Your task to perform on an android device: Show me recent news Image 0: 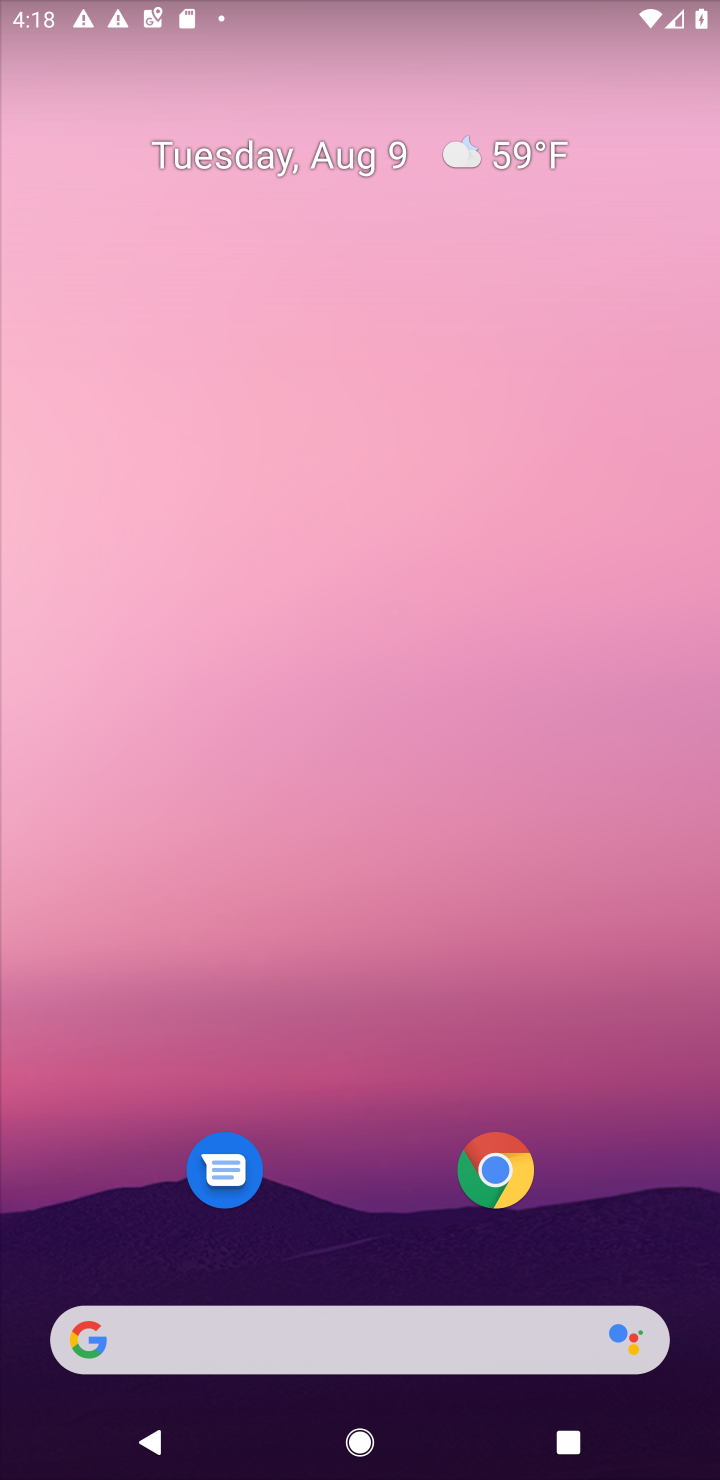
Step 0: press home button
Your task to perform on an android device: Show me recent news Image 1: 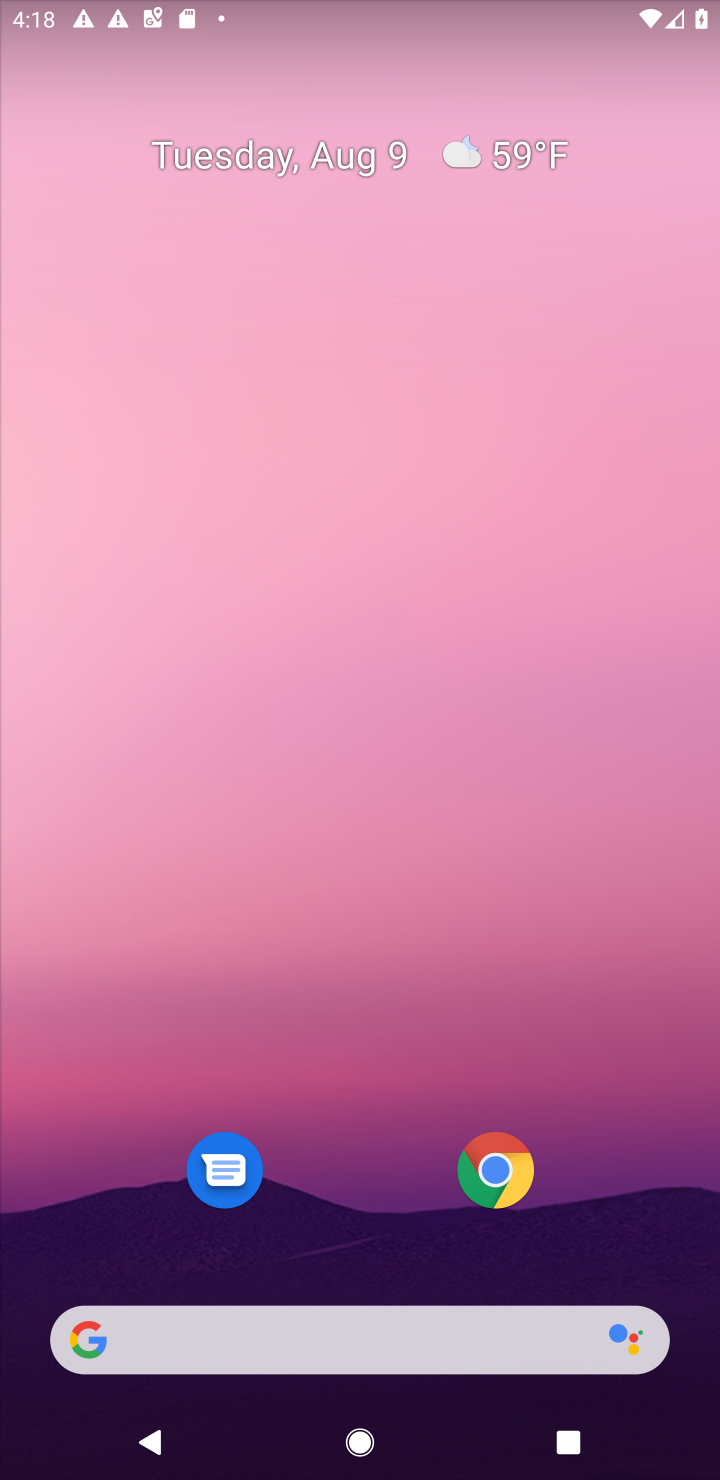
Step 1: click (86, 1349)
Your task to perform on an android device: Show me recent news Image 2: 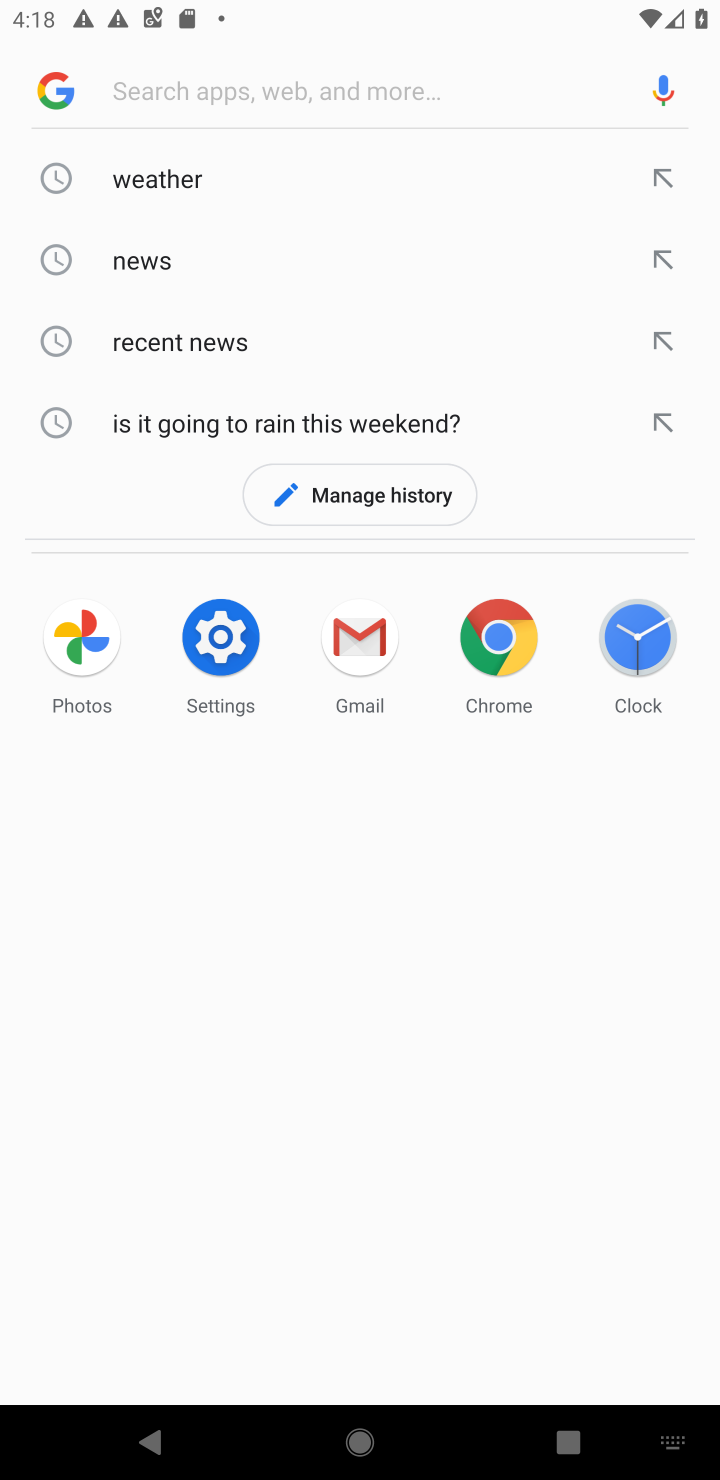
Step 2: type "recent news"
Your task to perform on an android device: Show me recent news Image 3: 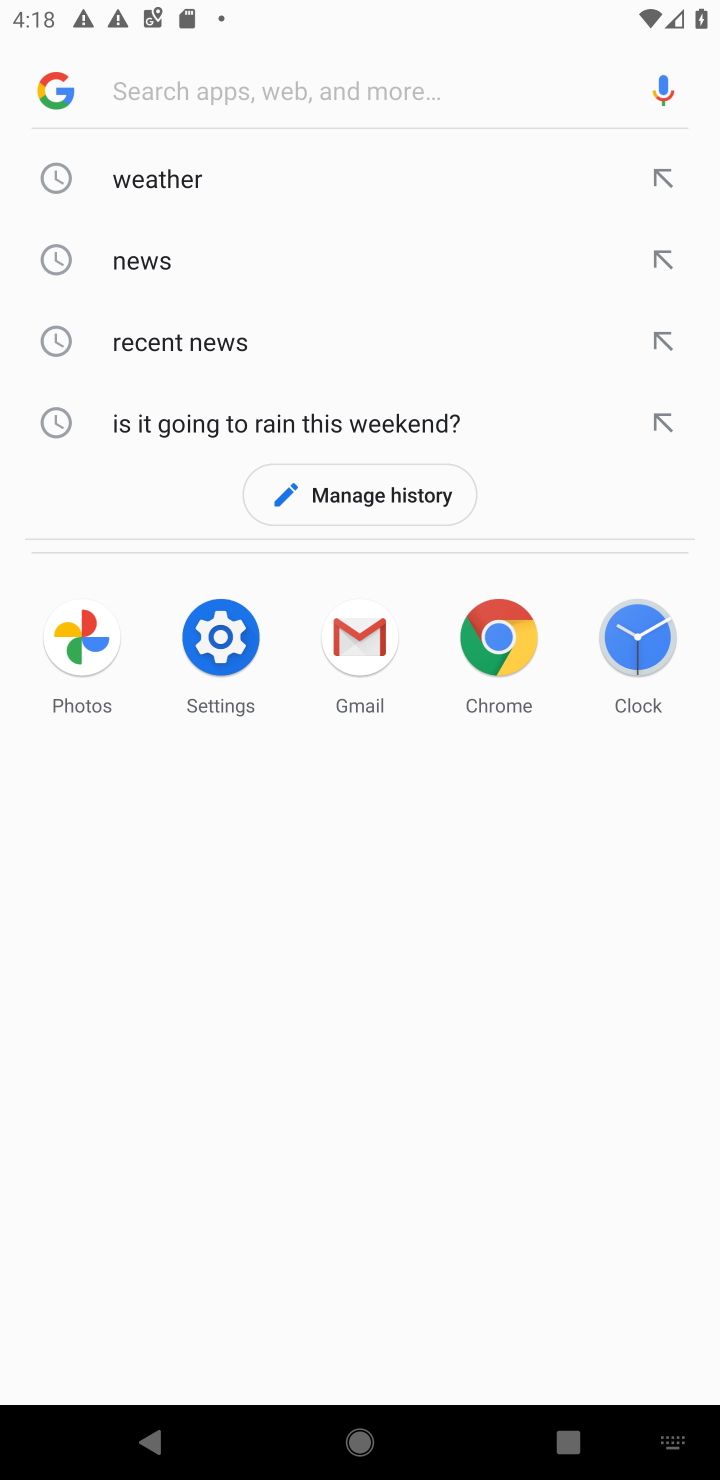
Step 3: click (163, 83)
Your task to perform on an android device: Show me recent news Image 4: 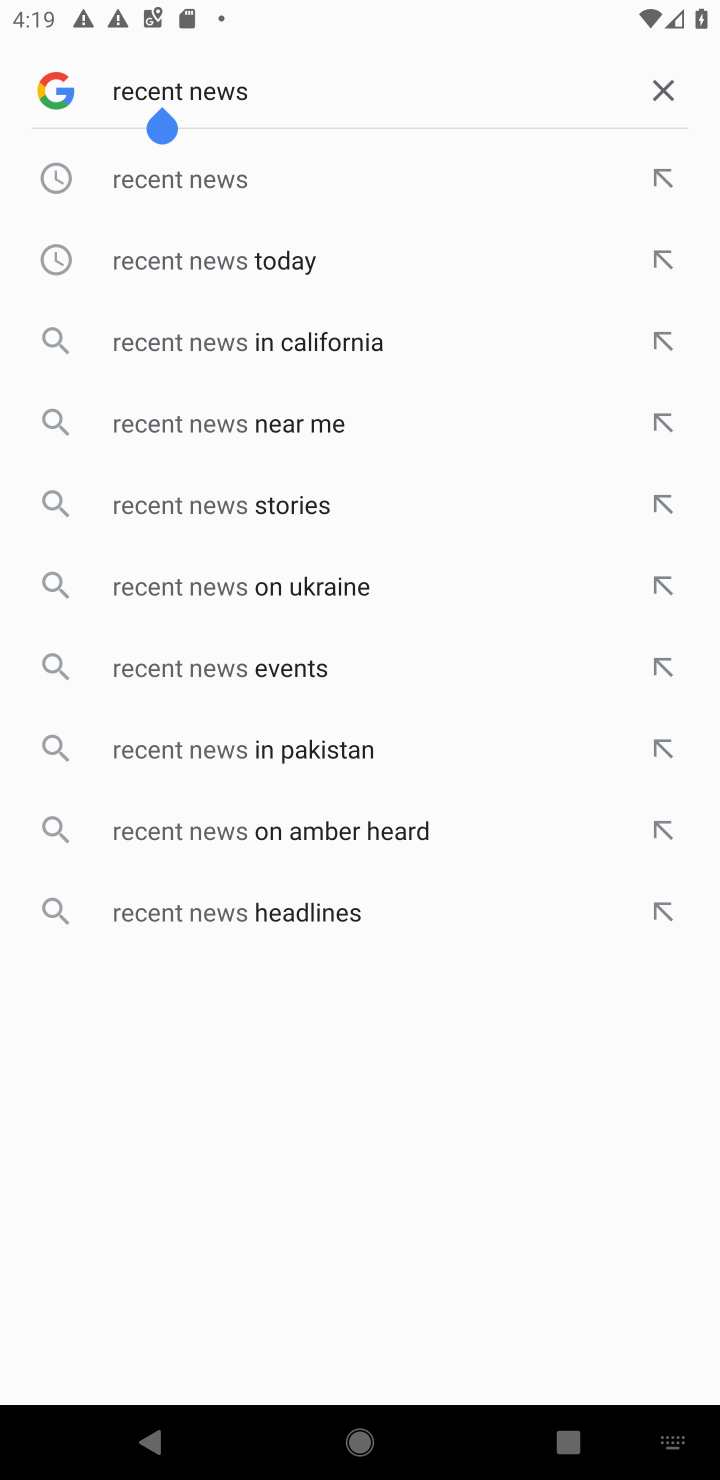
Step 4: click (206, 184)
Your task to perform on an android device: Show me recent news Image 5: 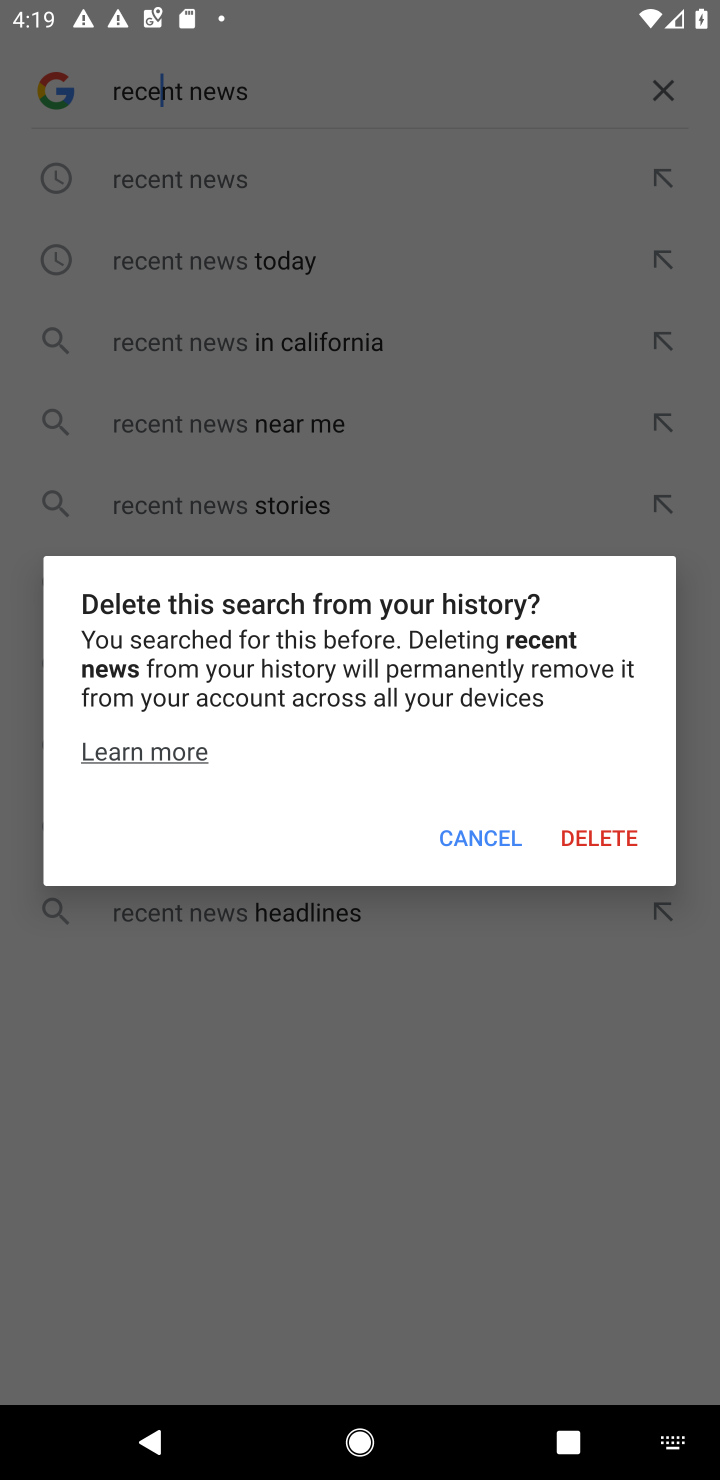
Step 5: click (444, 842)
Your task to perform on an android device: Show me recent news Image 6: 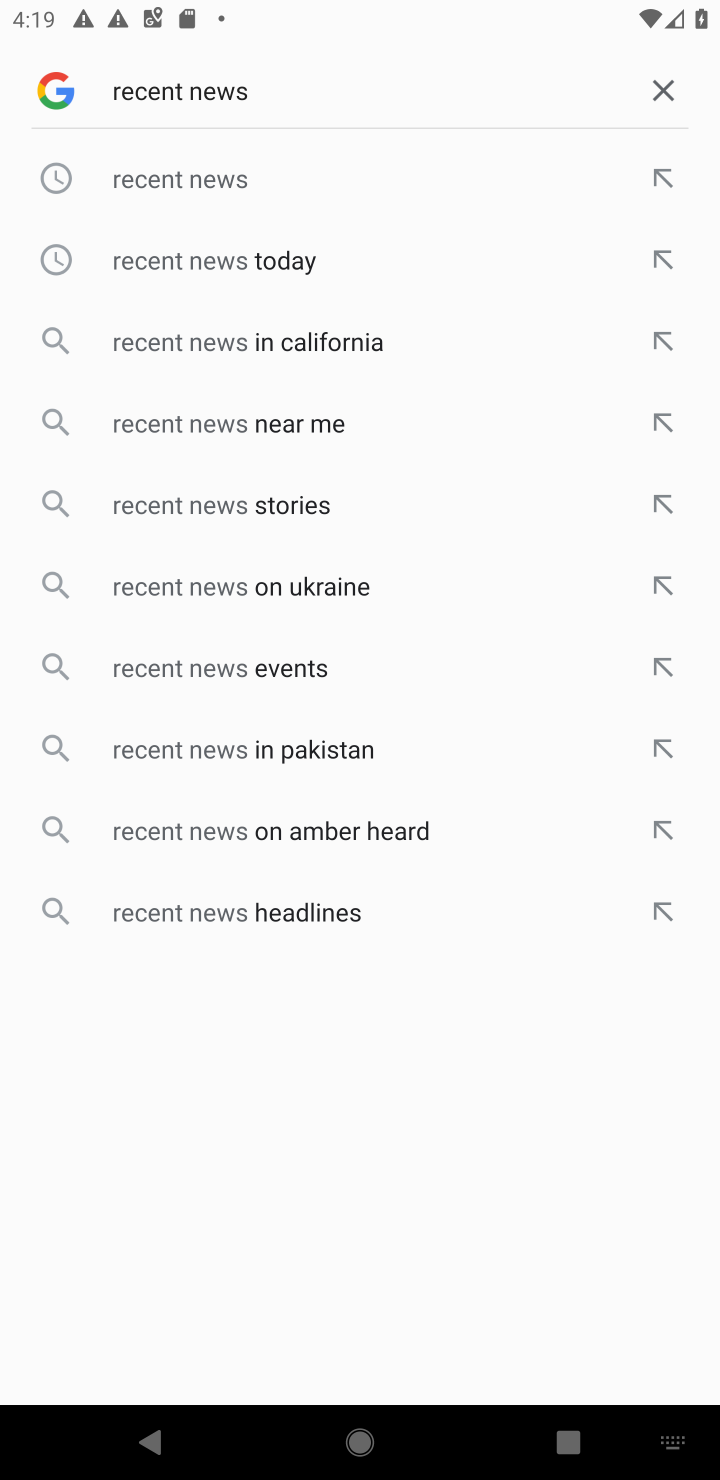
Step 6: click (196, 176)
Your task to perform on an android device: Show me recent news Image 7: 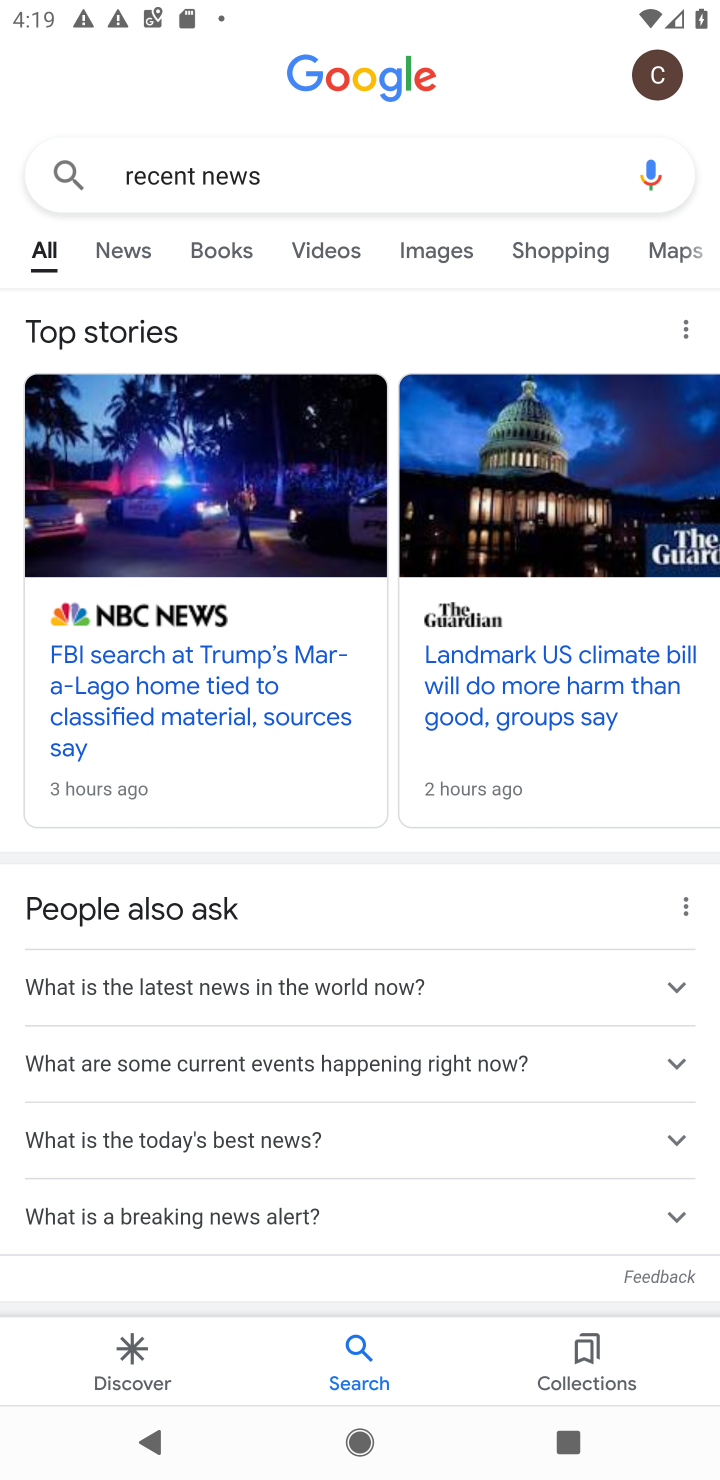
Step 7: task complete